Your task to perform on an android device: Open the map Image 0: 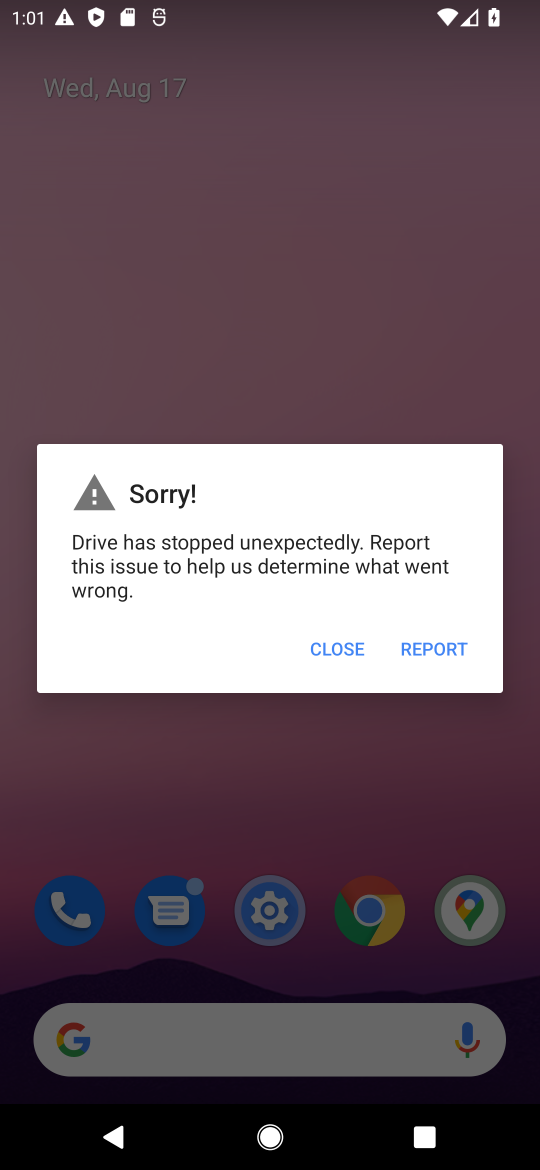
Step 0: click (341, 660)
Your task to perform on an android device: Open the map Image 1: 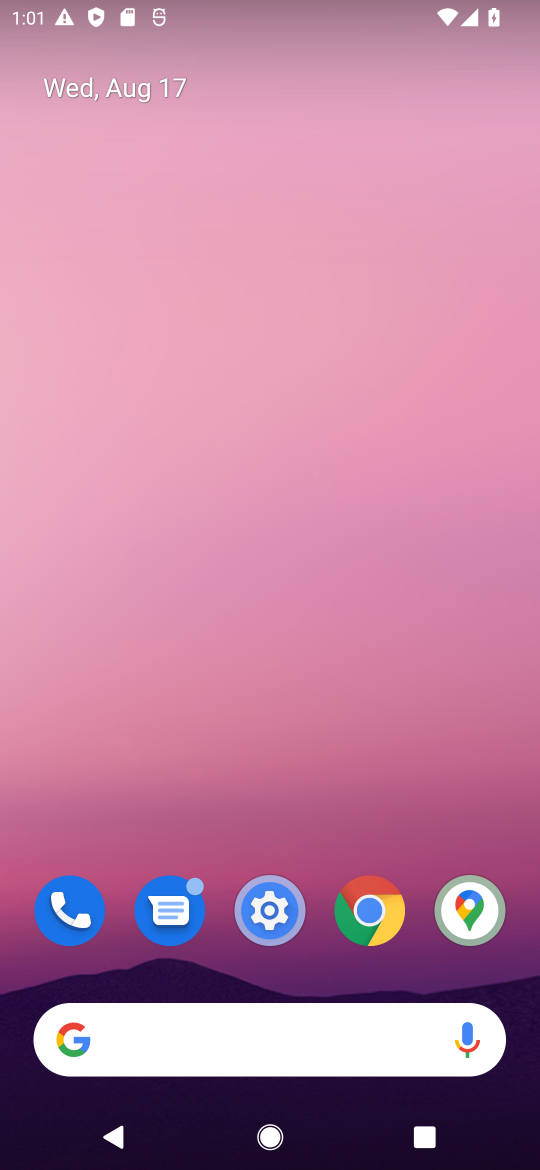
Step 1: click (461, 916)
Your task to perform on an android device: Open the map Image 2: 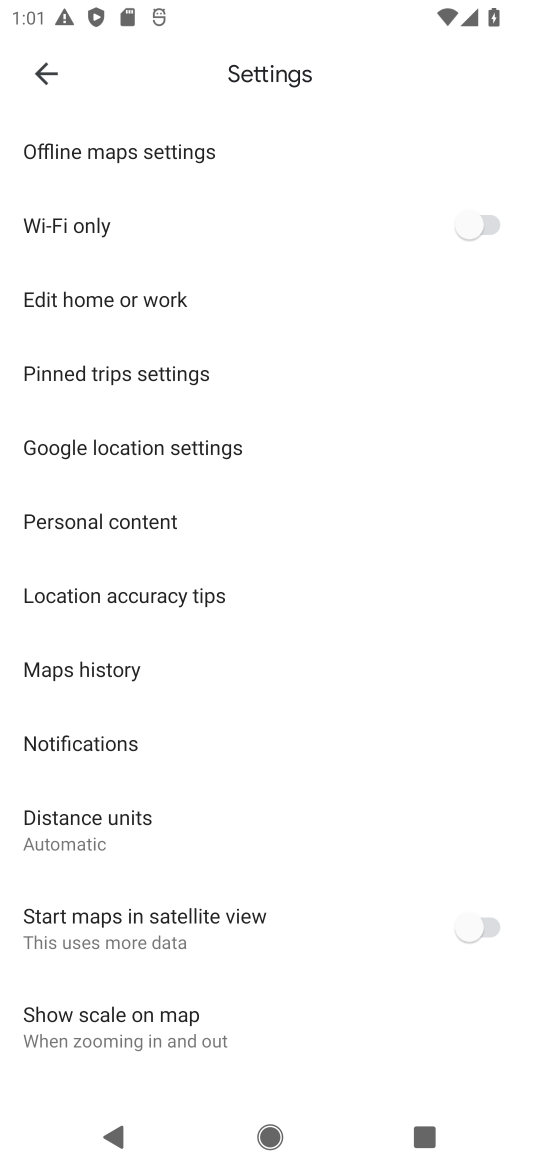
Step 2: task complete